Your task to perform on an android device: Go to eBay Image 0: 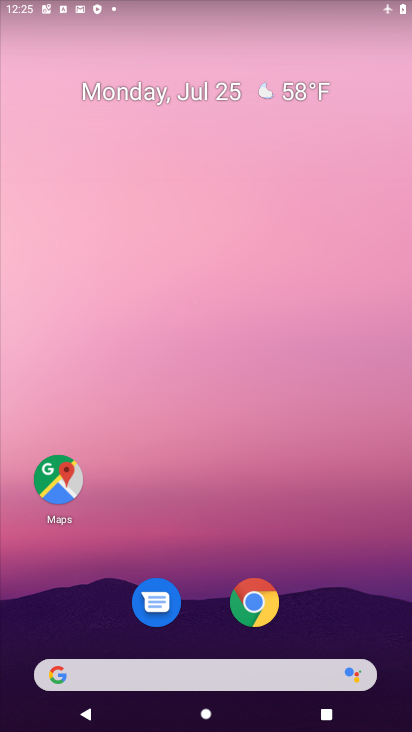
Step 0: click (263, 601)
Your task to perform on an android device: Go to eBay Image 1: 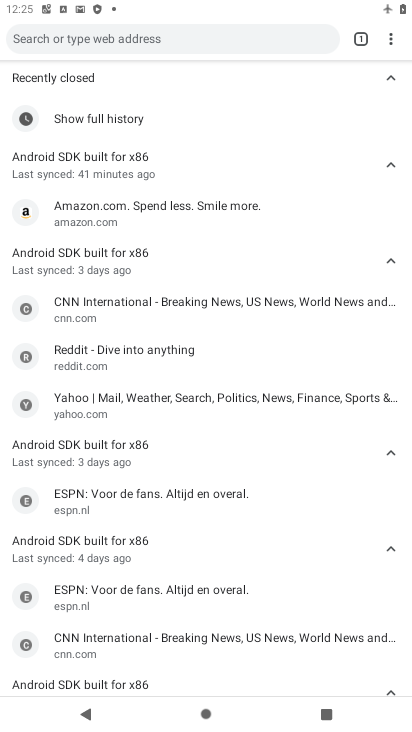
Step 1: click (358, 35)
Your task to perform on an android device: Go to eBay Image 2: 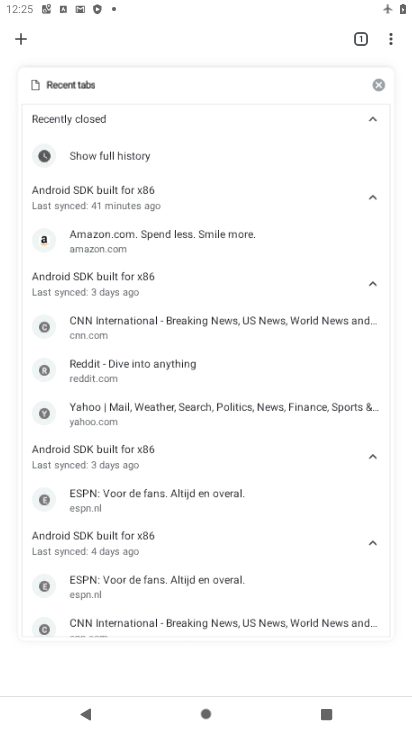
Step 2: click (17, 27)
Your task to perform on an android device: Go to eBay Image 3: 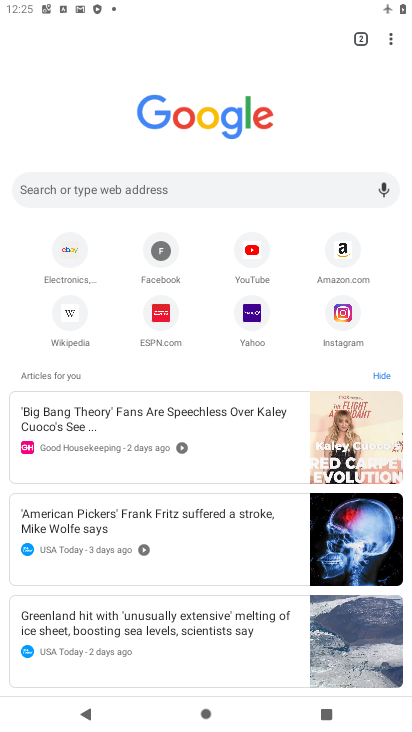
Step 3: click (138, 184)
Your task to perform on an android device: Go to eBay Image 4: 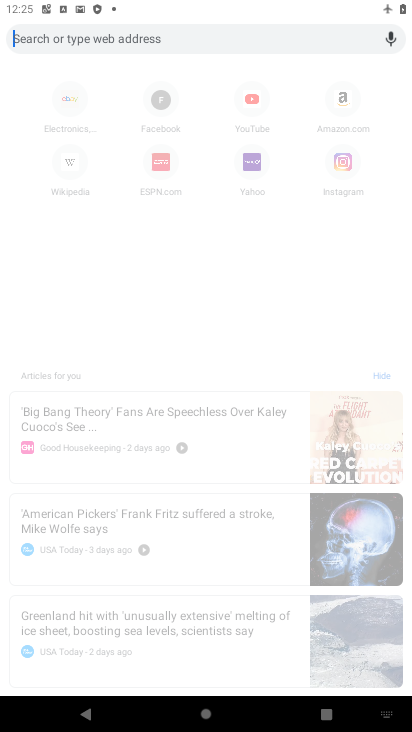
Step 4: type "eBay"
Your task to perform on an android device: Go to eBay Image 5: 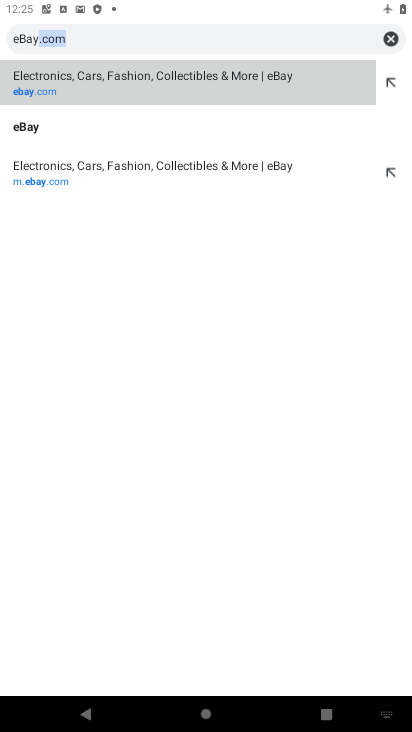
Step 5: click (79, 145)
Your task to perform on an android device: Go to eBay Image 6: 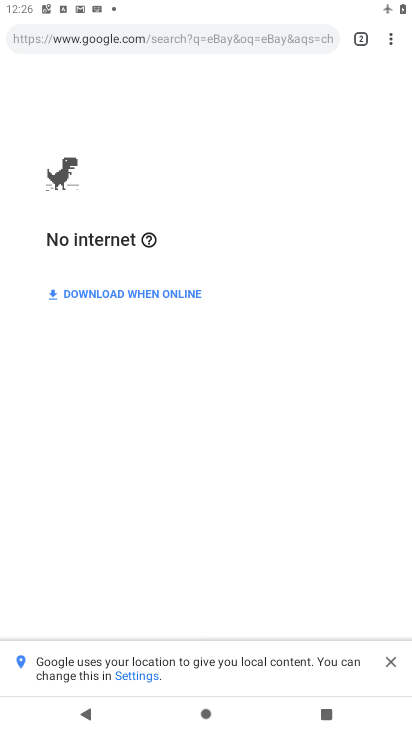
Step 6: task complete